Your task to perform on an android device: Open the map Image 0: 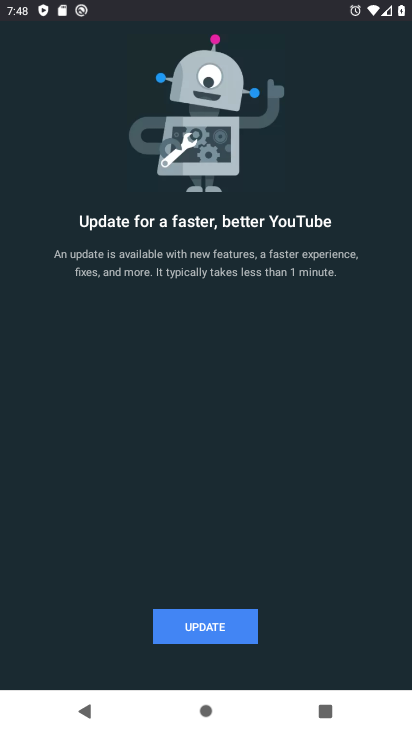
Step 0: press home button
Your task to perform on an android device: Open the map Image 1: 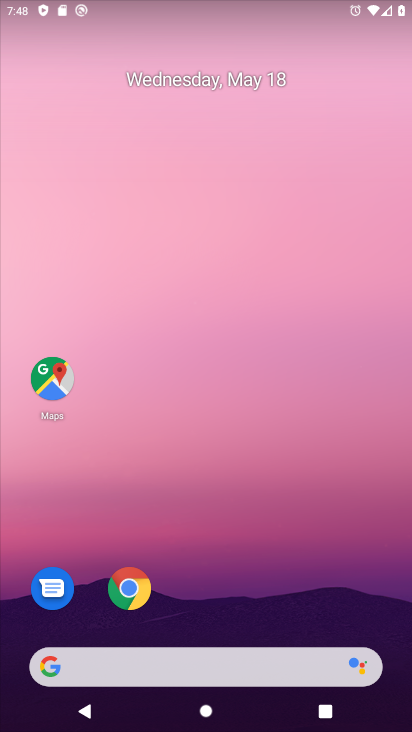
Step 1: click (62, 373)
Your task to perform on an android device: Open the map Image 2: 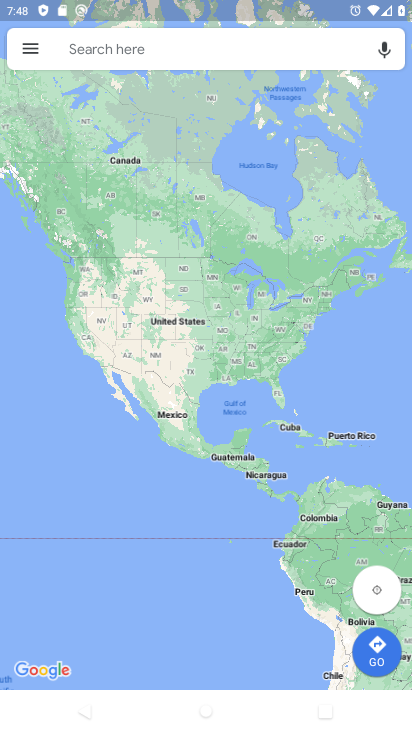
Step 2: task complete